Your task to perform on an android device: What's the weather today? Image 0: 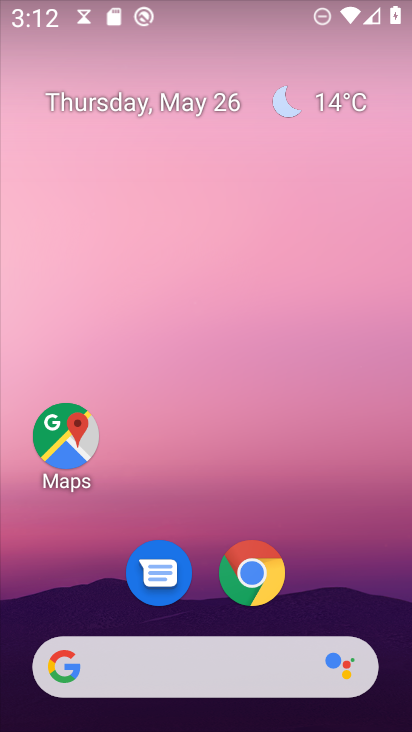
Step 0: drag from (295, 464) to (184, 23)
Your task to perform on an android device: What's the weather today? Image 1: 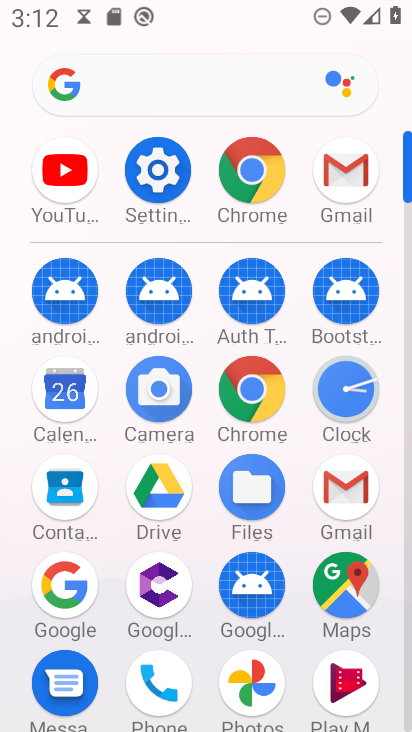
Step 1: drag from (8, 634) to (32, 235)
Your task to perform on an android device: What's the weather today? Image 2: 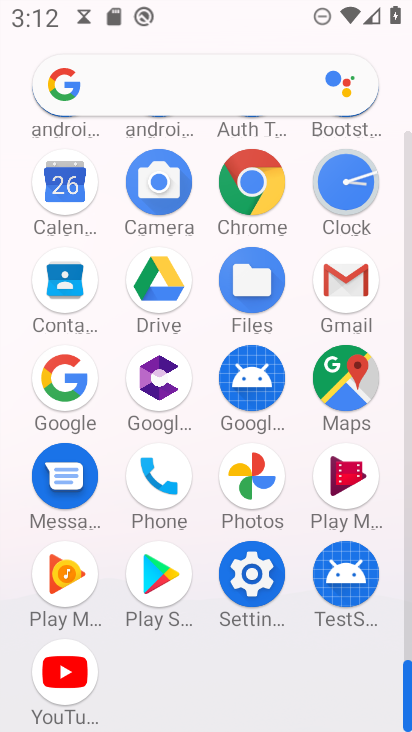
Step 2: click (251, 180)
Your task to perform on an android device: What's the weather today? Image 3: 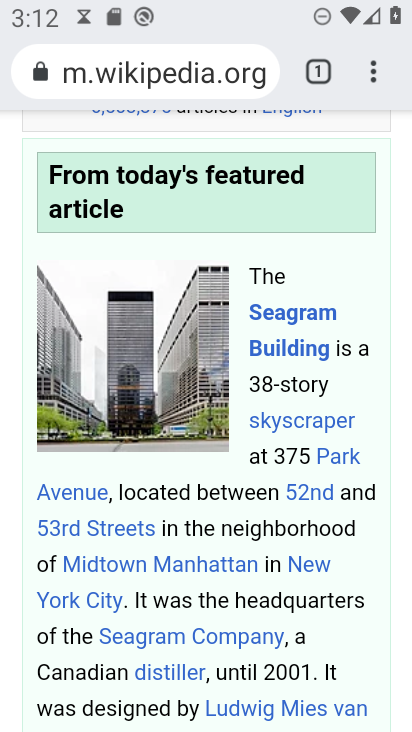
Step 3: click (145, 74)
Your task to perform on an android device: What's the weather today? Image 4: 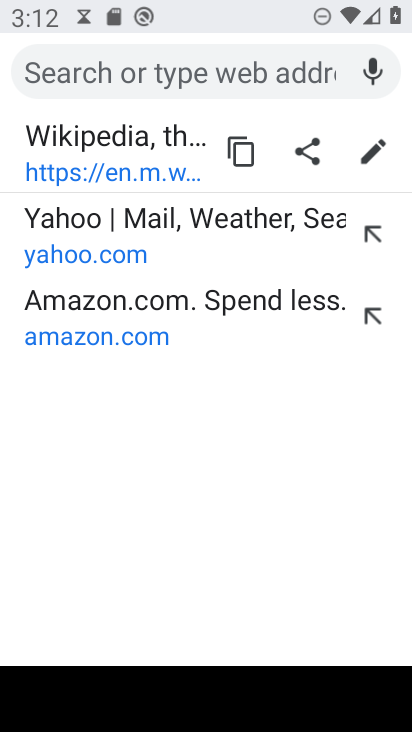
Step 4: type "What's the weather today?"
Your task to perform on an android device: What's the weather today? Image 5: 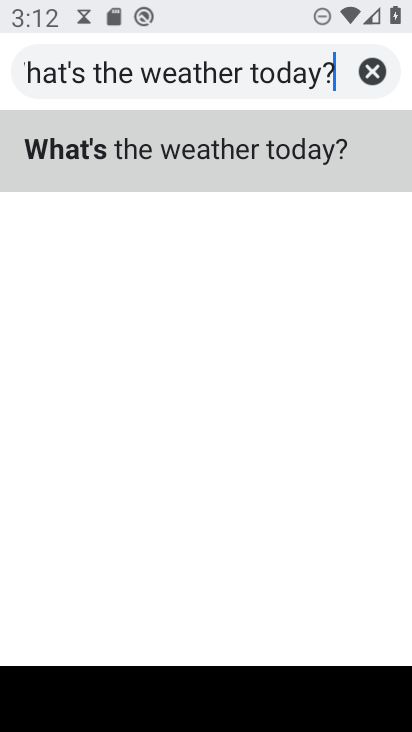
Step 5: type ""
Your task to perform on an android device: What's the weather today? Image 6: 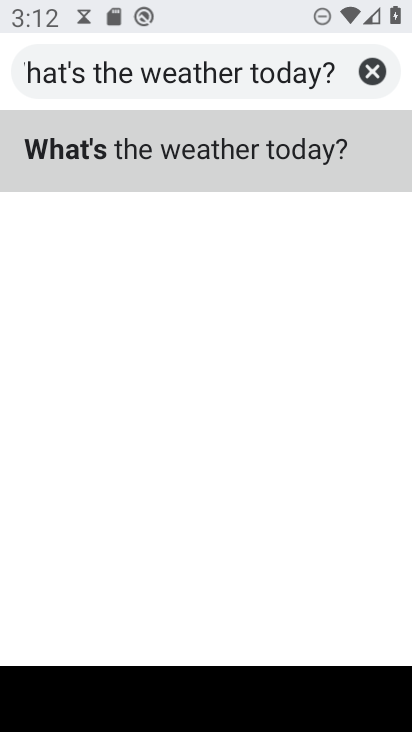
Step 6: click (143, 151)
Your task to perform on an android device: What's the weather today? Image 7: 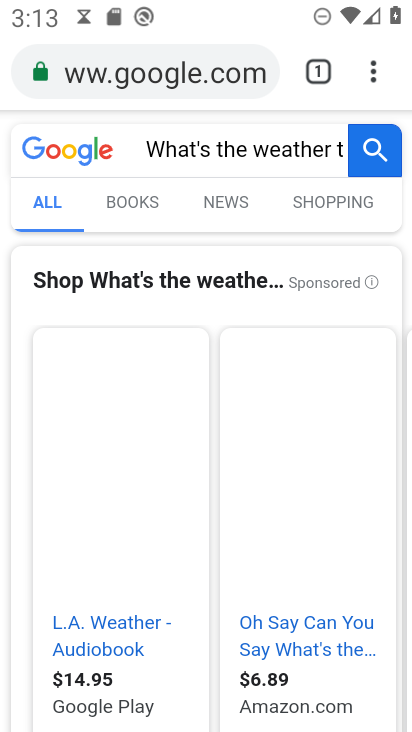
Step 7: click (135, 61)
Your task to perform on an android device: What's the weather today? Image 8: 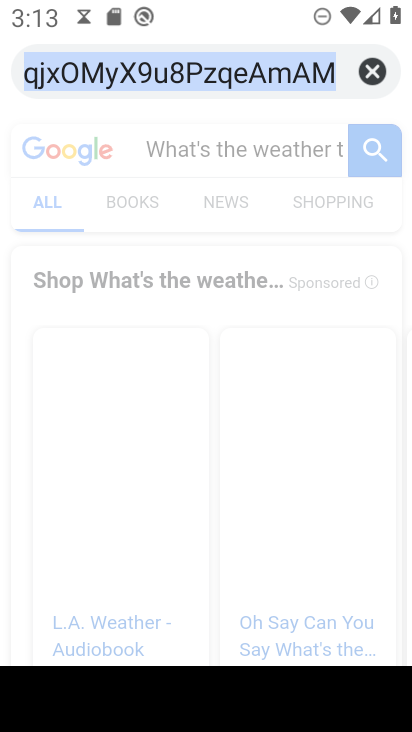
Step 8: click (377, 60)
Your task to perform on an android device: What's the weather today? Image 9: 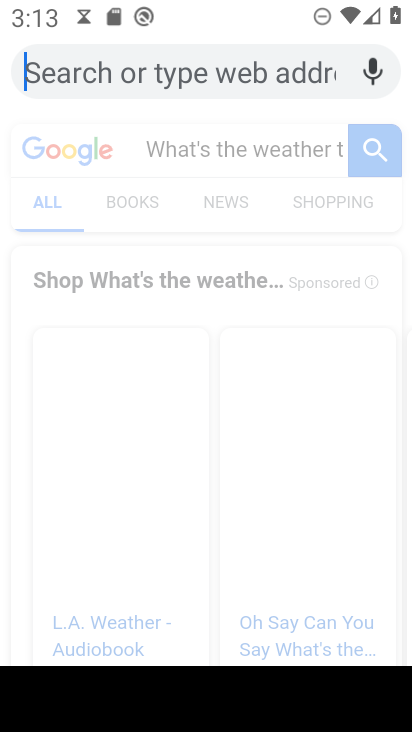
Step 9: type "What's the weather today?"
Your task to perform on an android device: What's the weather today? Image 10: 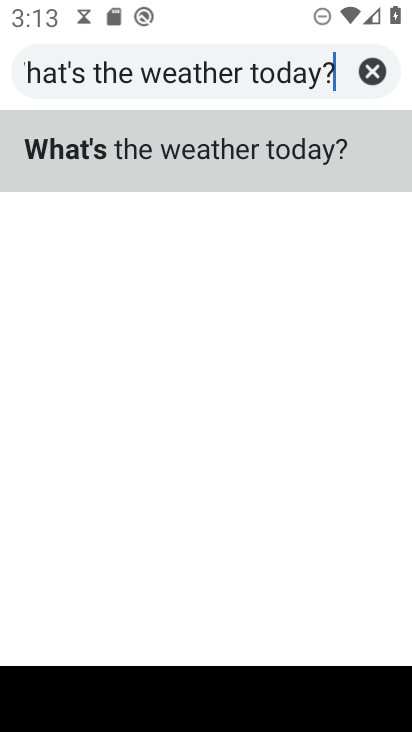
Step 10: type ""
Your task to perform on an android device: What's the weather today? Image 11: 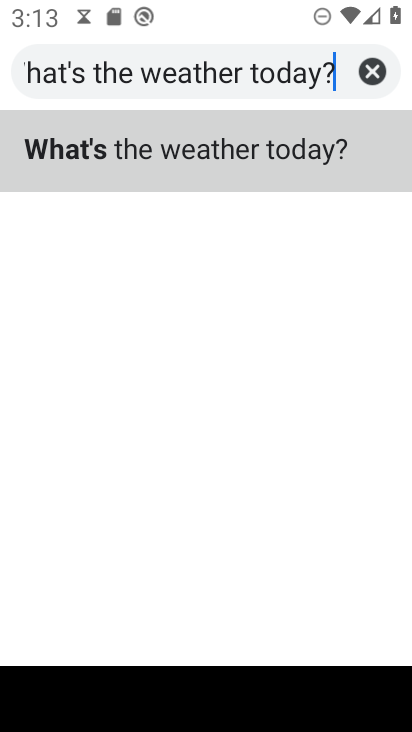
Step 11: click (191, 141)
Your task to perform on an android device: What's the weather today? Image 12: 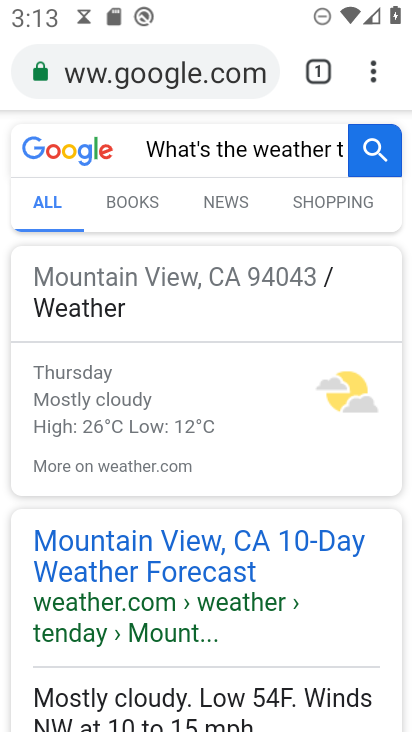
Step 12: task complete